Your task to perform on an android device: What's the weather going to be this weekend? Image 0: 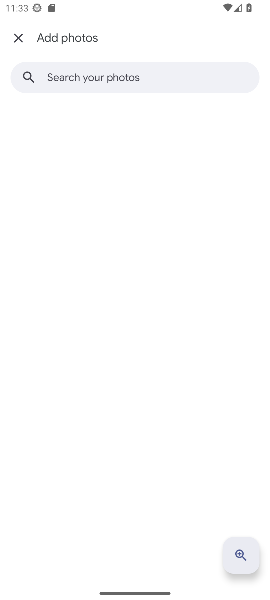
Step 0: press back button
Your task to perform on an android device: What's the weather going to be this weekend? Image 1: 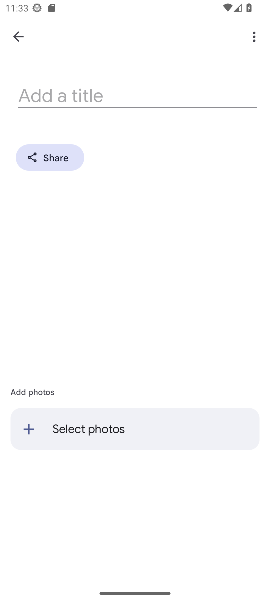
Step 1: press home button
Your task to perform on an android device: What's the weather going to be this weekend? Image 2: 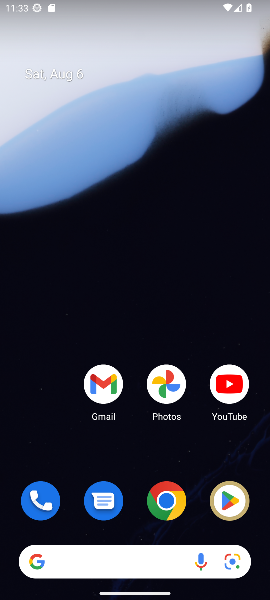
Step 2: click (87, 565)
Your task to perform on an android device: What's the weather going to be this weekend? Image 3: 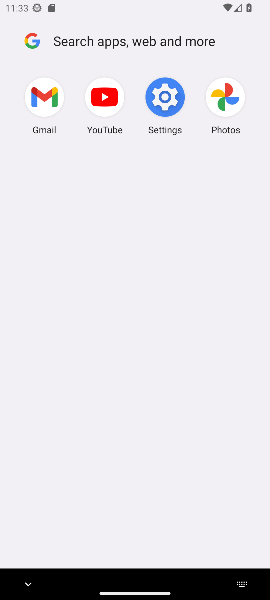
Step 3: click (63, 39)
Your task to perform on an android device: What's the weather going to be this weekend? Image 4: 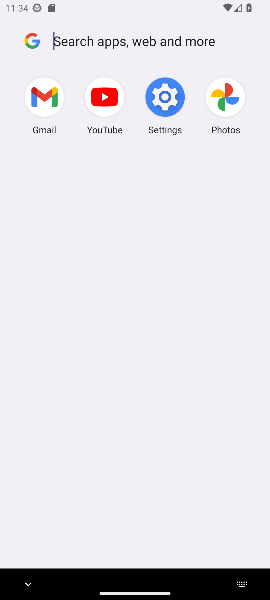
Step 4: type "wwheather"
Your task to perform on an android device: What's the weather going to be this weekend? Image 5: 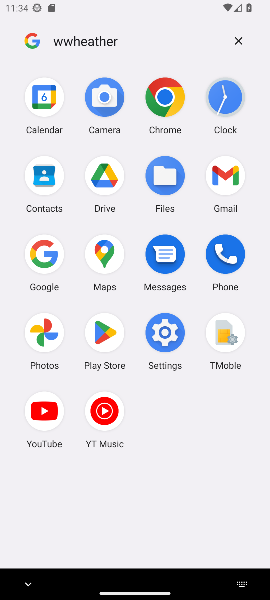
Step 5: click (50, 251)
Your task to perform on an android device: What's the weather going to be this weekend? Image 6: 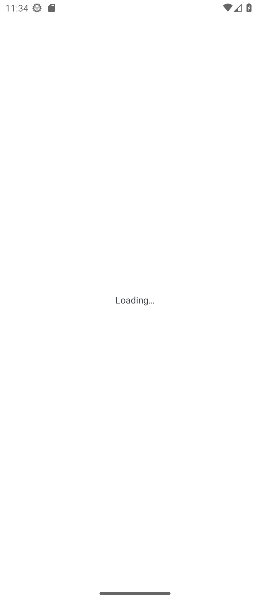
Step 6: task complete